Your task to perform on an android device: Search for dell alienware on walmart.com, select the first entry, and add it to the cart. Image 0: 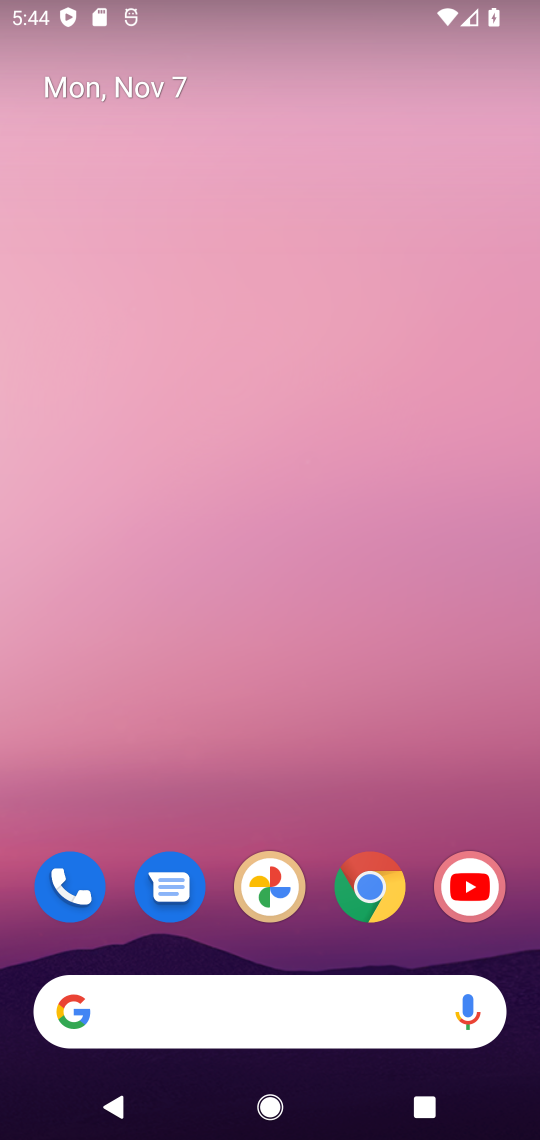
Step 0: click (360, 885)
Your task to perform on an android device: Search for dell alienware on walmart.com, select the first entry, and add it to the cart. Image 1: 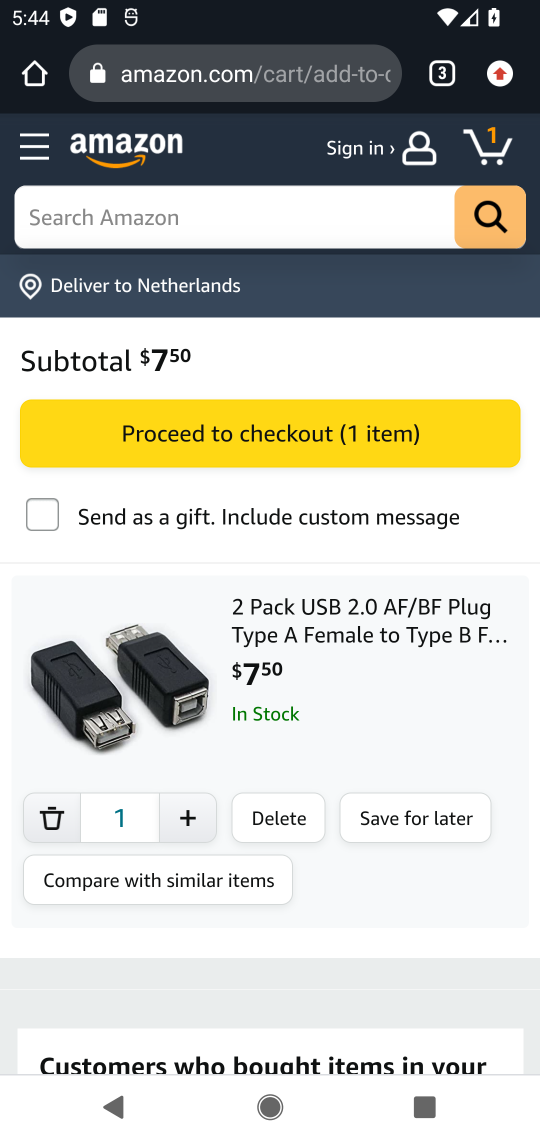
Step 1: click (436, 69)
Your task to perform on an android device: Search for dell alienware on walmart.com, select the first entry, and add it to the cart. Image 2: 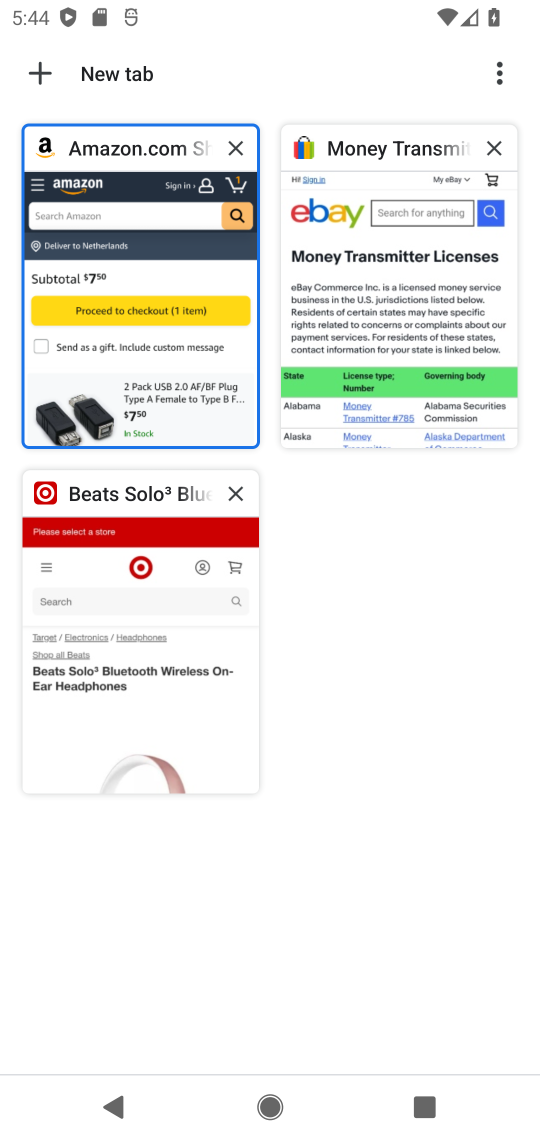
Step 2: click (35, 72)
Your task to perform on an android device: Search for dell alienware on walmart.com, select the first entry, and add it to the cart. Image 3: 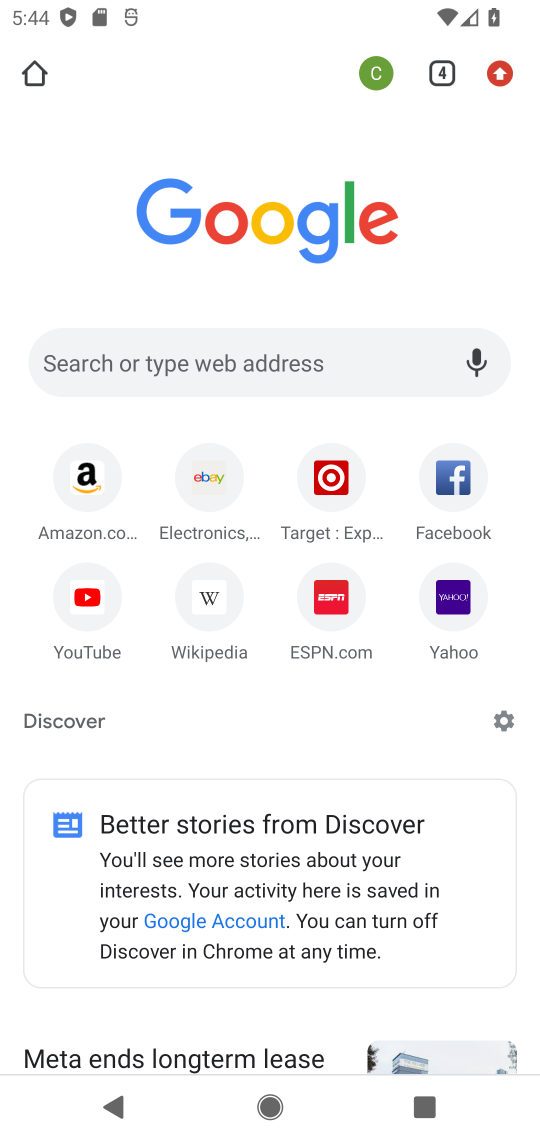
Step 3: click (239, 356)
Your task to perform on an android device: Search for dell alienware on walmart.com, select the first entry, and add it to the cart. Image 4: 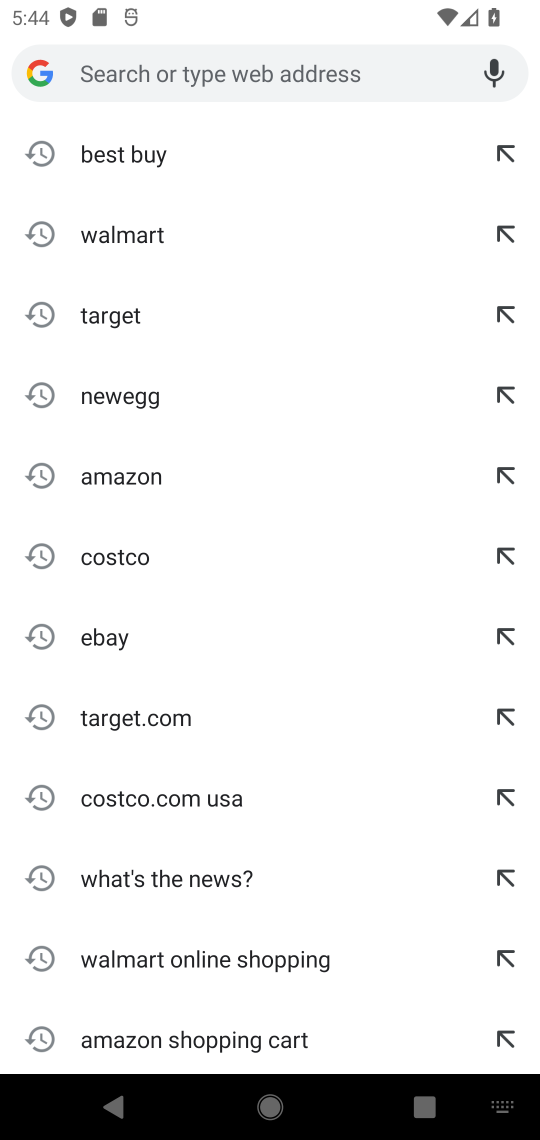
Step 4: click (122, 227)
Your task to perform on an android device: Search for dell alienware on walmart.com, select the first entry, and add it to the cart. Image 5: 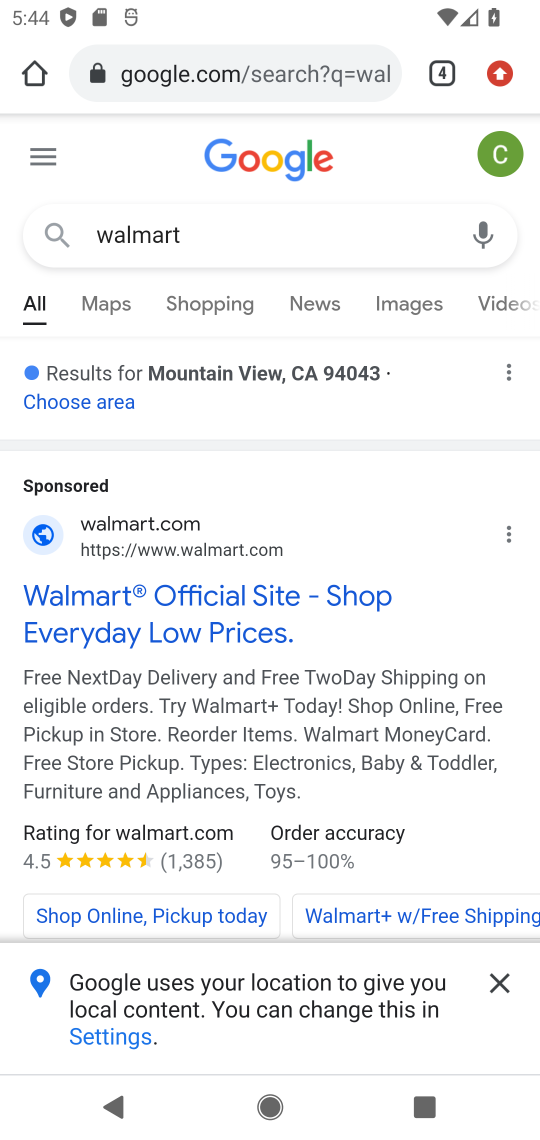
Step 5: drag from (223, 786) to (246, 153)
Your task to perform on an android device: Search for dell alienware on walmart.com, select the first entry, and add it to the cart. Image 6: 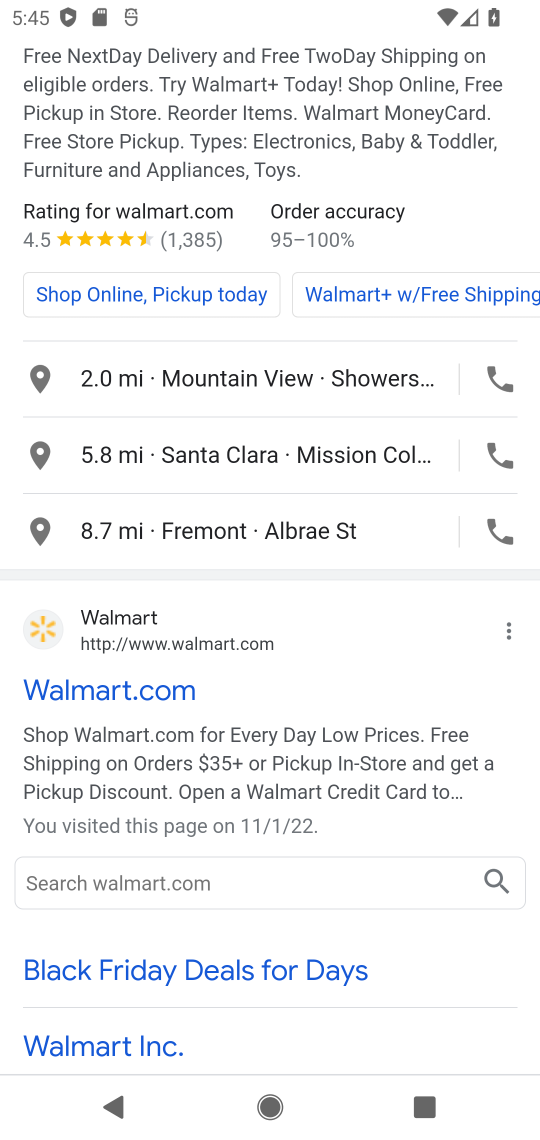
Step 6: click (131, 880)
Your task to perform on an android device: Search for dell alienware on walmart.com, select the first entry, and add it to the cart. Image 7: 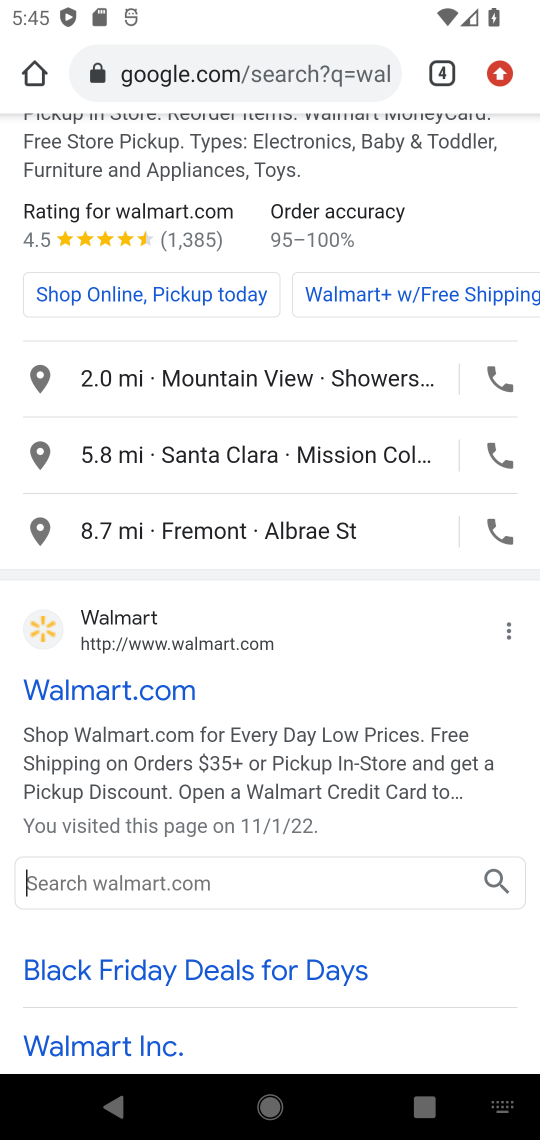
Step 7: type "dell alienware"
Your task to perform on an android device: Search for dell alienware on walmart.com, select the first entry, and add it to the cart. Image 8: 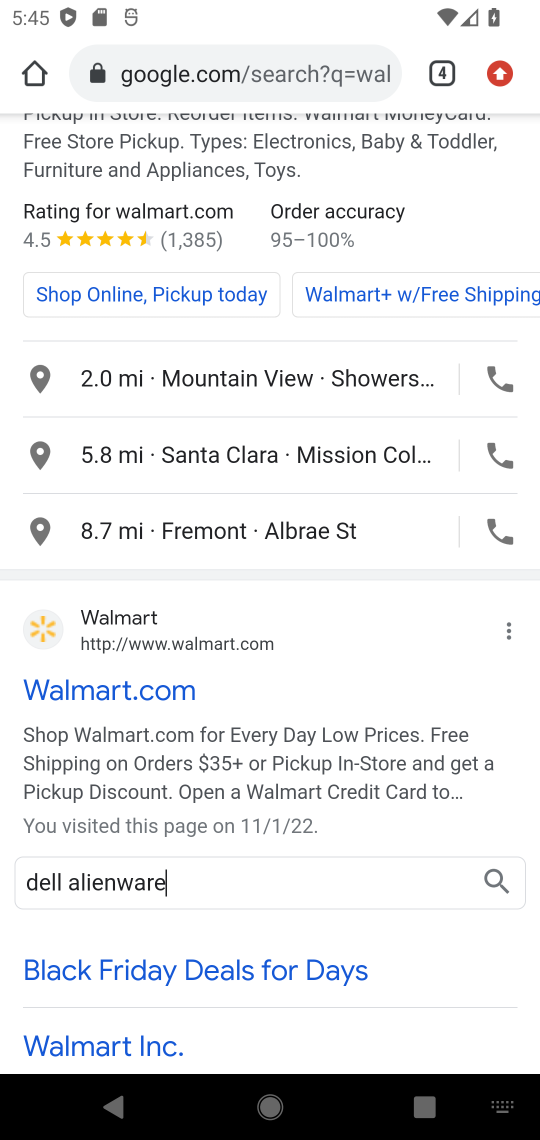
Step 8: click (494, 876)
Your task to perform on an android device: Search for dell alienware on walmart.com, select the first entry, and add it to the cart. Image 9: 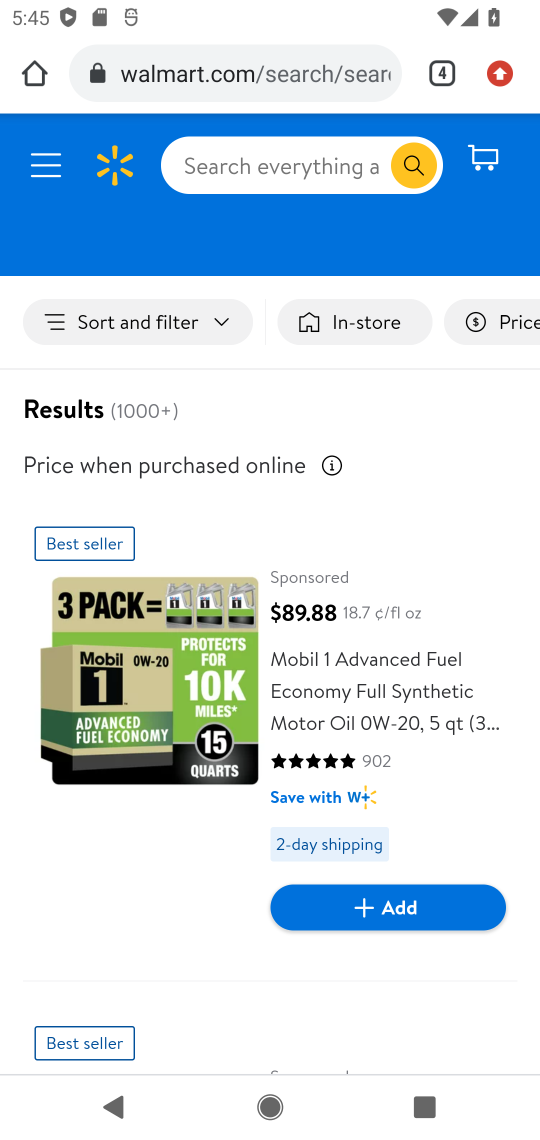
Step 9: click (395, 913)
Your task to perform on an android device: Search for dell alienware on walmart.com, select the first entry, and add it to the cart. Image 10: 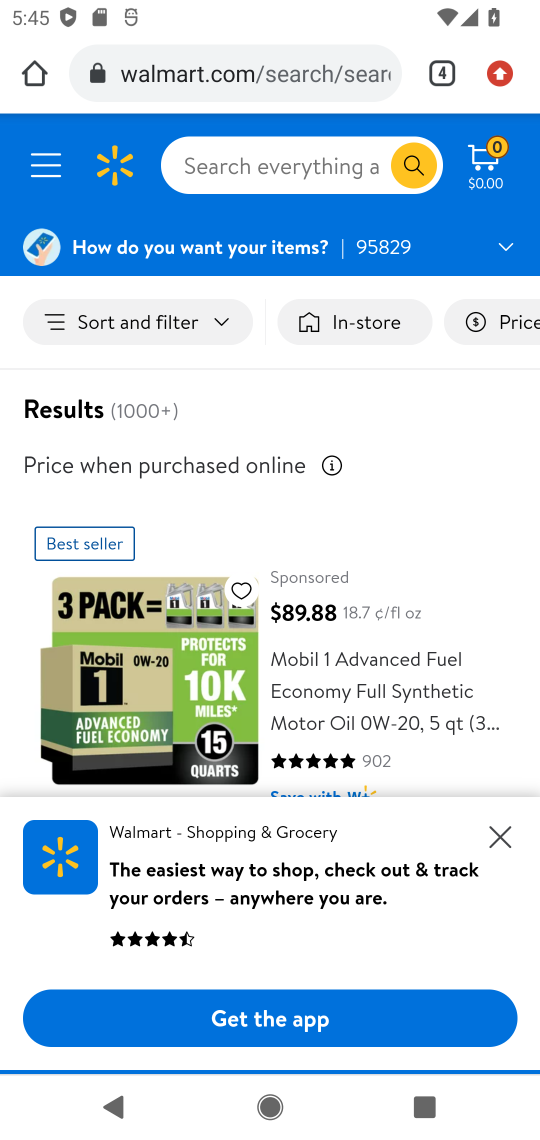
Step 10: task complete